Your task to perform on an android device: What's the weather? Image 0: 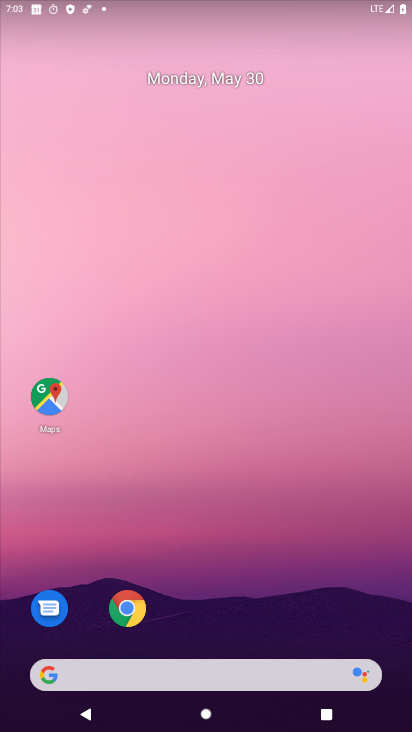
Step 0: click (126, 606)
Your task to perform on an android device: What's the weather? Image 1: 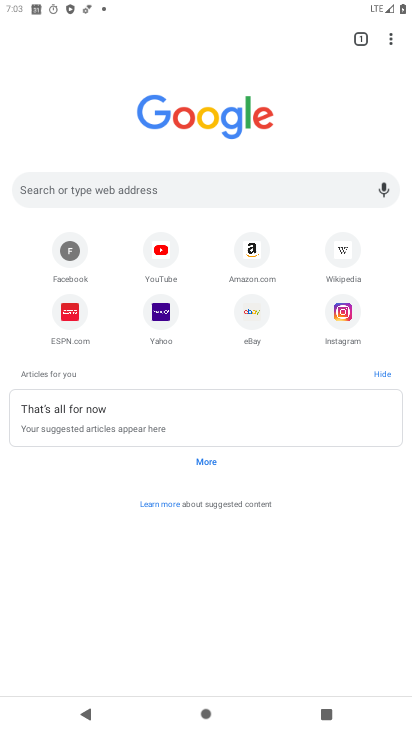
Step 1: click (120, 200)
Your task to perform on an android device: What's the weather? Image 2: 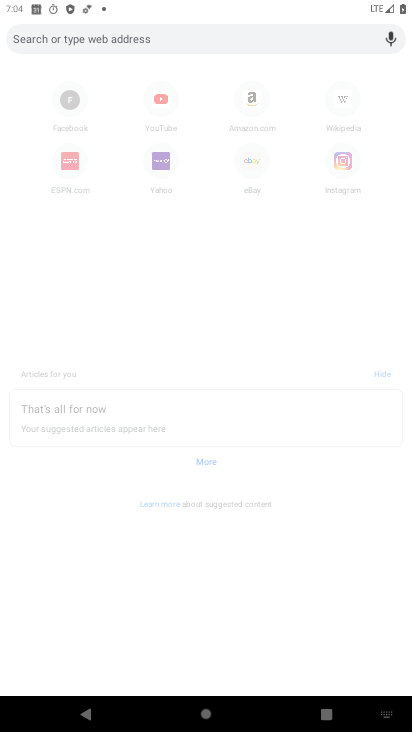
Step 2: type "weather"
Your task to perform on an android device: What's the weather? Image 3: 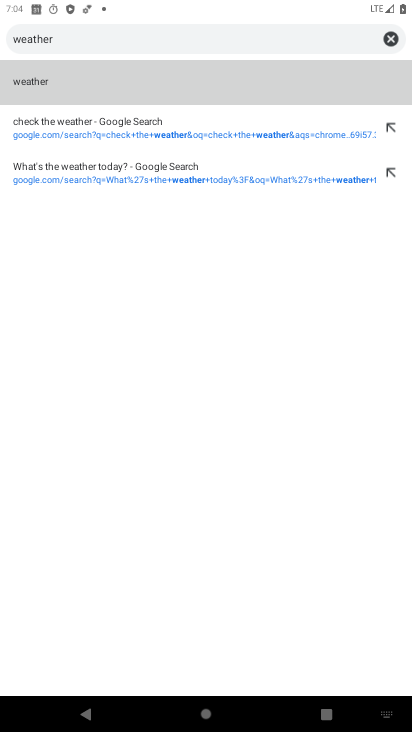
Step 3: click (167, 88)
Your task to perform on an android device: What's the weather? Image 4: 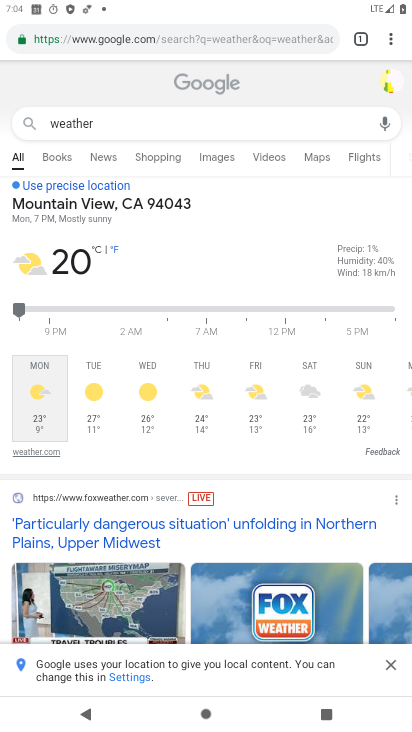
Step 4: task complete